Your task to perform on an android device: Open Google Image 0: 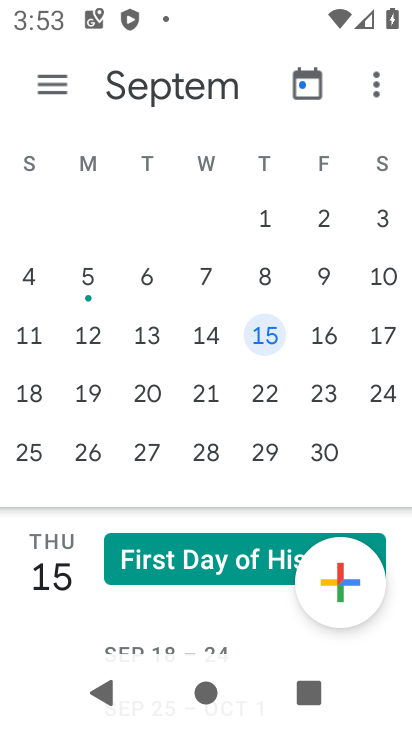
Step 0: press home button
Your task to perform on an android device: Open Google Image 1: 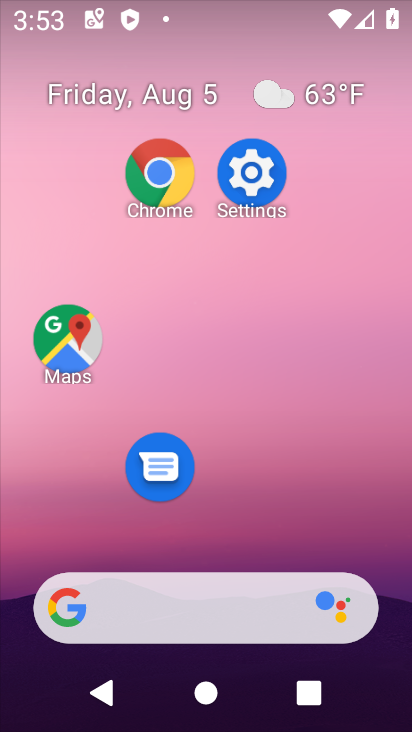
Step 1: drag from (264, 509) to (289, 69)
Your task to perform on an android device: Open Google Image 2: 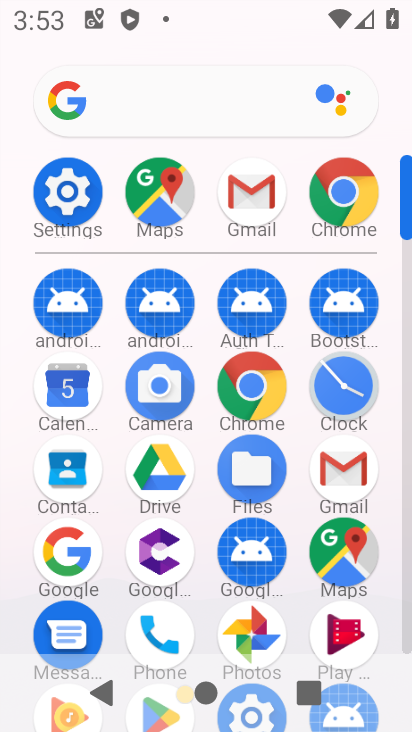
Step 2: drag from (193, 599) to (200, 175)
Your task to perform on an android device: Open Google Image 3: 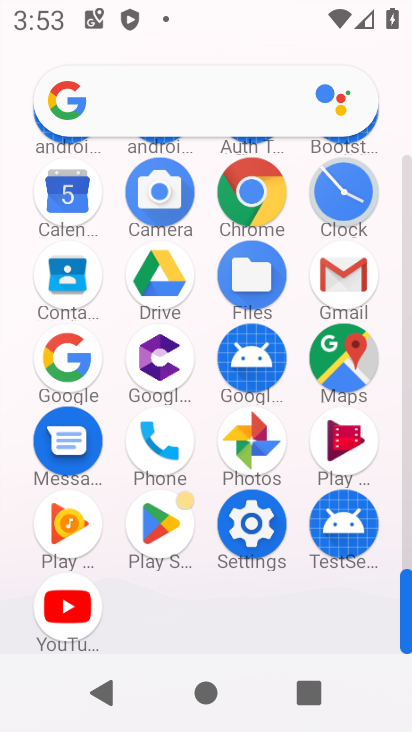
Step 3: drag from (197, 207) to (209, 512)
Your task to perform on an android device: Open Google Image 4: 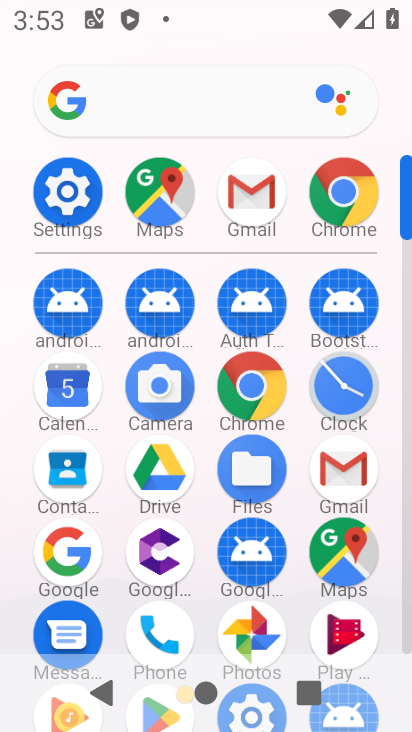
Step 4: click (67, 541)
Your task to perform on an android device: Open Google Image 5: 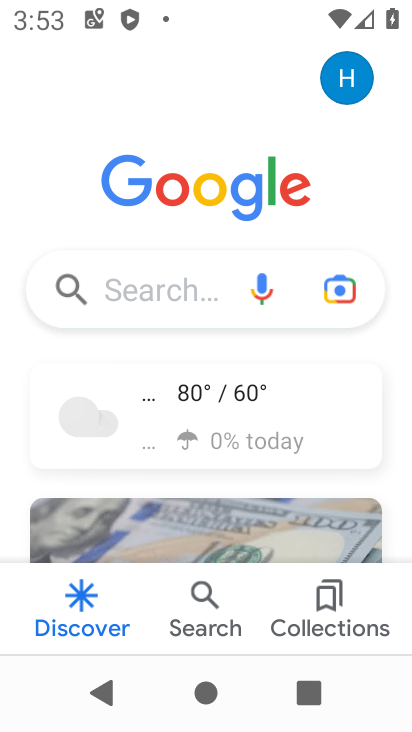
Step 5: task complete